Your task to perform on an android device: change the clock display to analog Image 0: 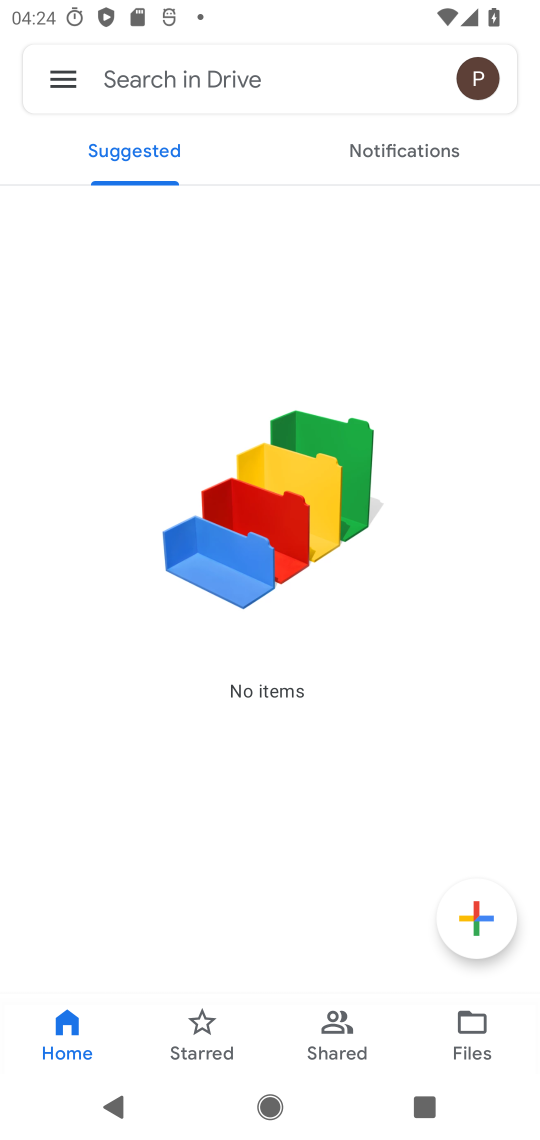
Step 0: press home button
Your task to perform on an android device: change the clock display to analog Image 1: 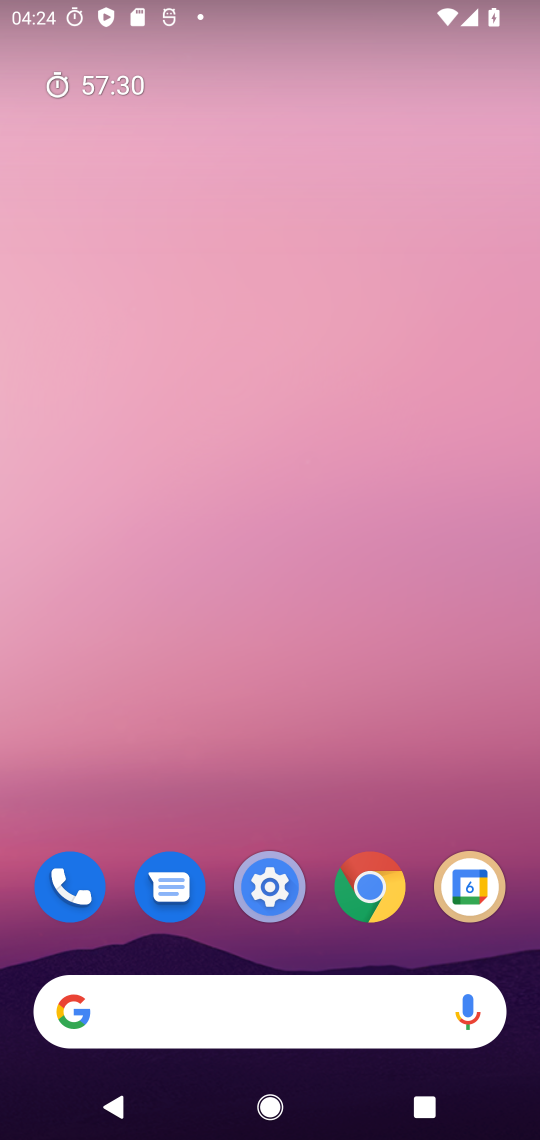
Step 1: drag from (406, 679) to (438, 290)
Your task to perform on an android device: change the clock display to analog Image 2: 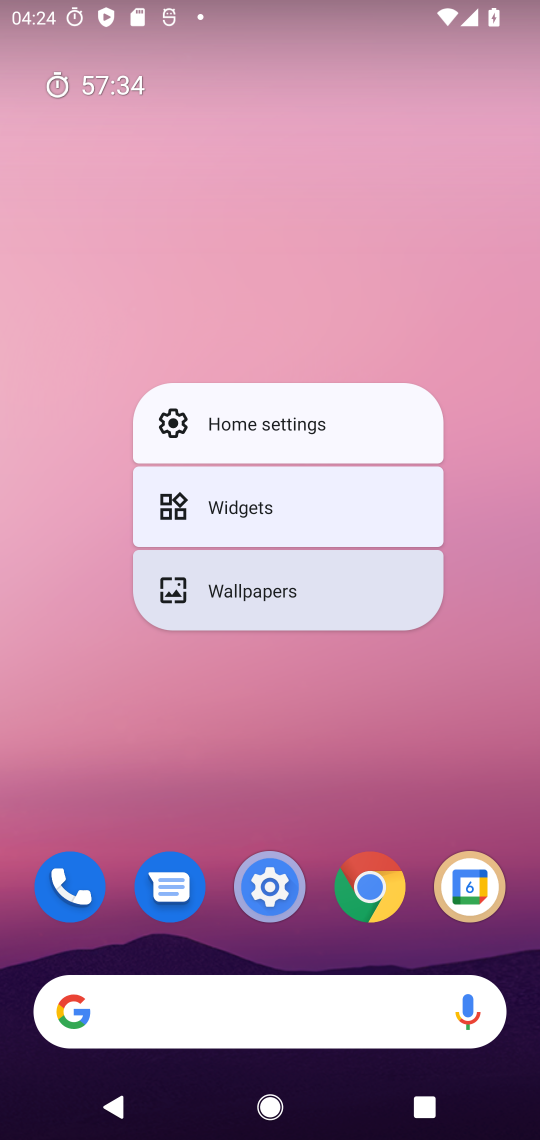
Step 2: click (484, 747)
Your task to perform on an android device: change the clock display to analog Image 3: 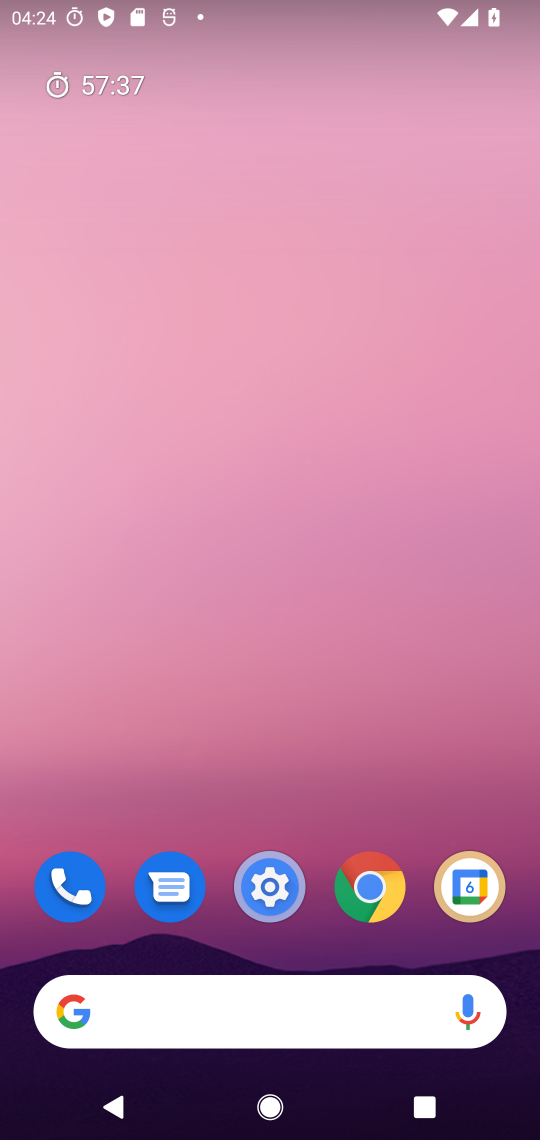
Step 3: drag from (409, 630) to (432, 171)
Your task to perform on an android device: change the clock display to analog Image 4: 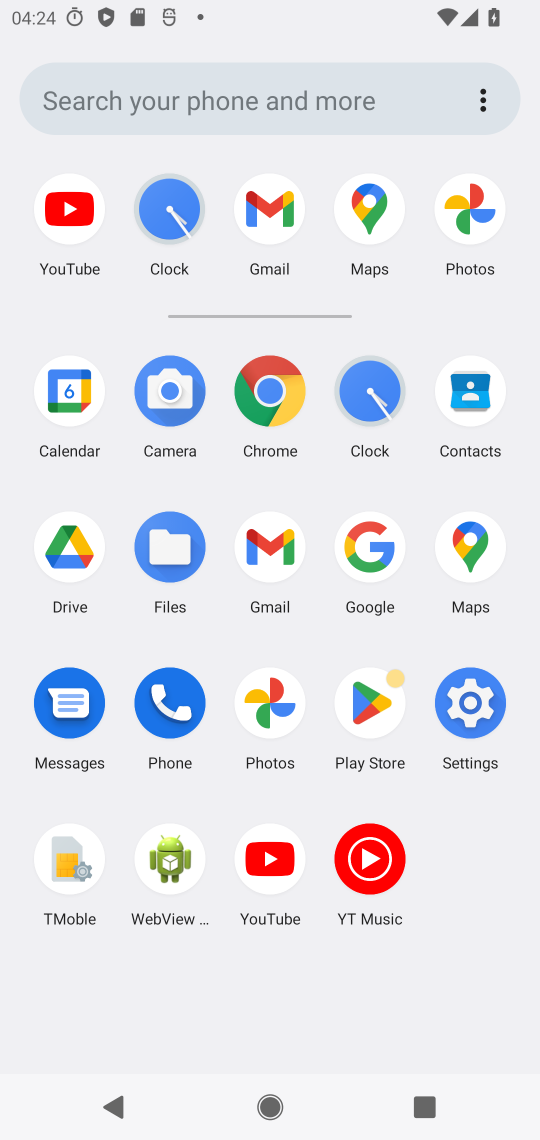
Step 4: click (384, 393)
Your task to perform on an android device: change the clock display to analog Image 5: 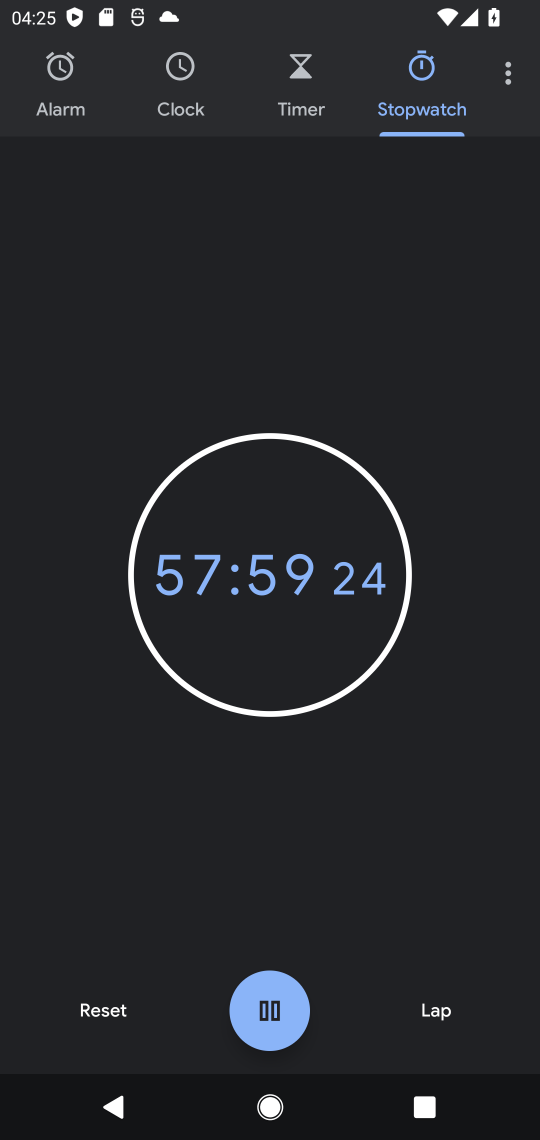
Step 5: click (508, 78)
Your task to perform on an android device: change the clock display to analog Image 6: 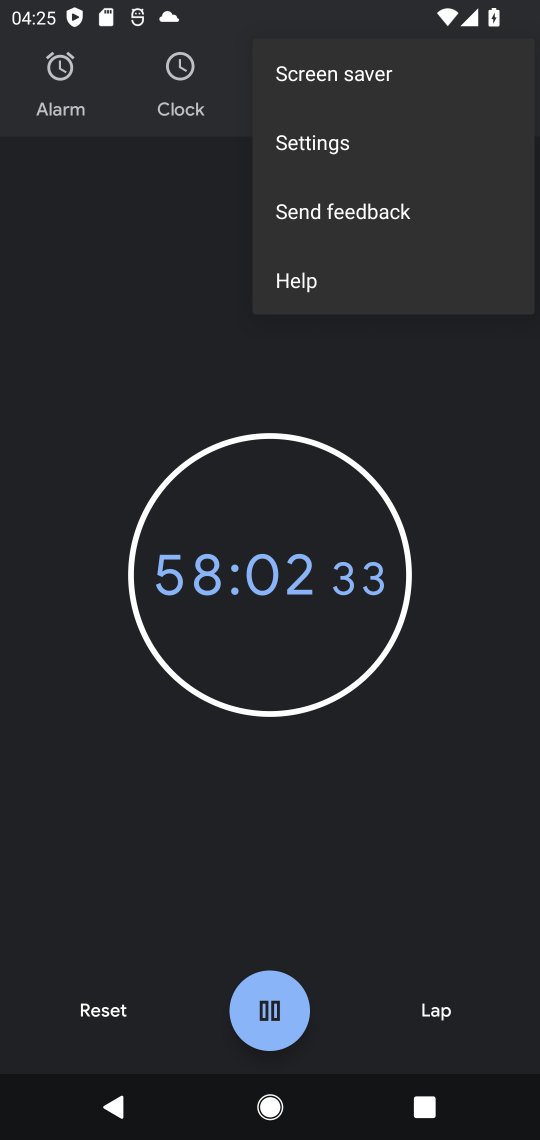
Step 6: click (375, 141)
Your task to perform on an android device: change the clock display to analog Image 7: 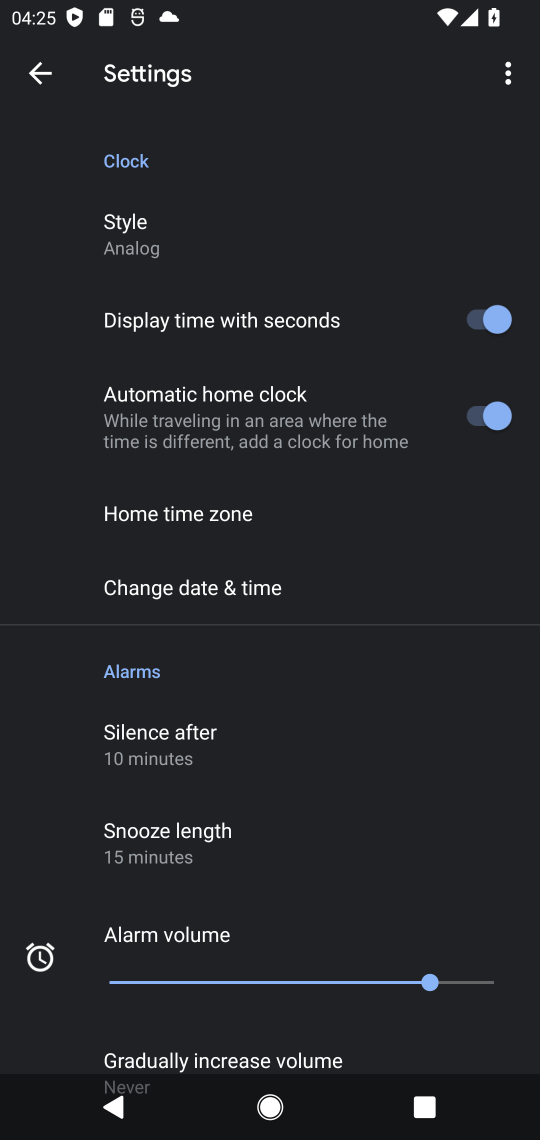
Step 7: click (386, 515)
Your task to perform on an android device: change the clock display to analog Image 8: 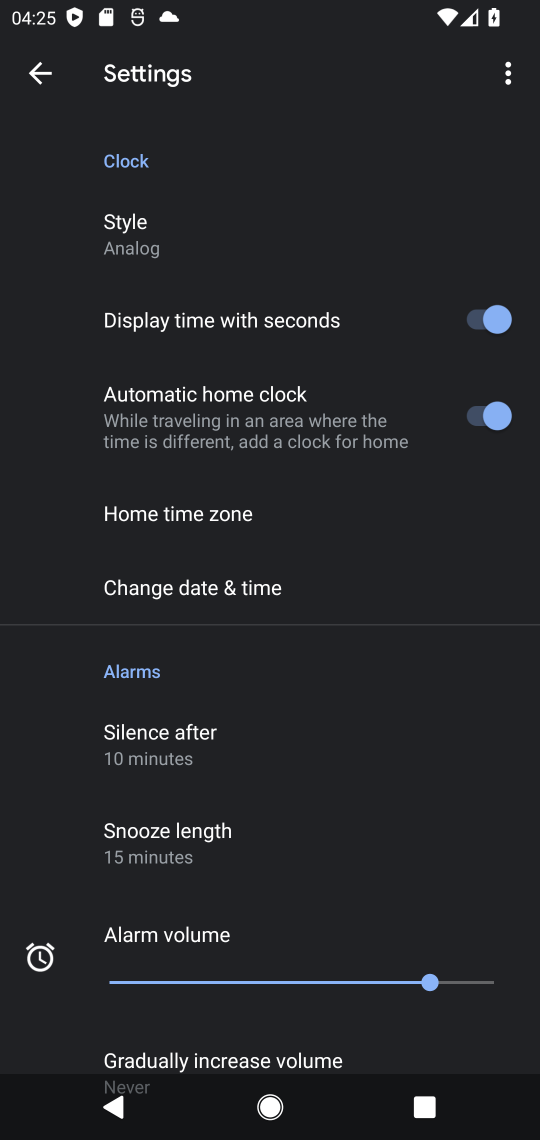
Step 8: task complete